Your task to perform on an android device: change keyboard looks Image 0: 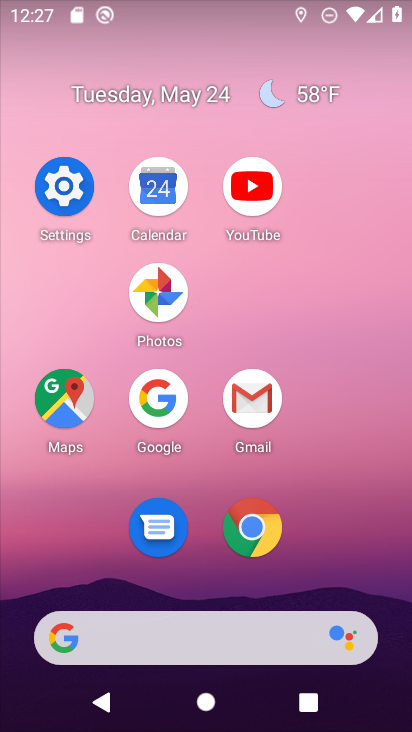
Step 0: click (60, 183)
Your task to perform on an android device: change keyboard looks Image 1: 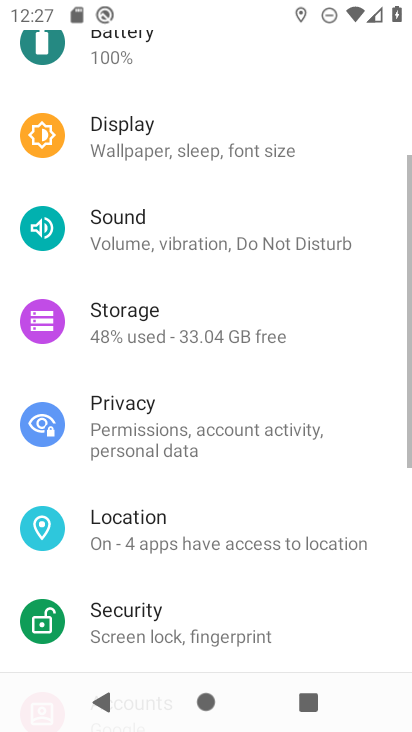
Step 1: drag from (304, 575) to (264, 189)
Your task to perform on an android device: change keyboard looks Image 2: 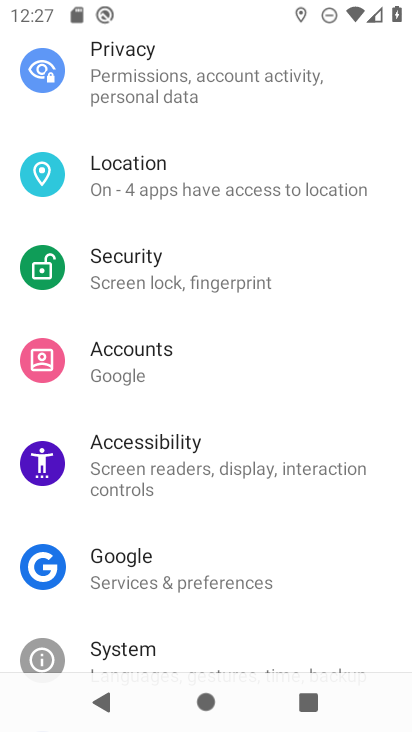
Step 2: drag from (216, 598) to (219, 180)
Your task to perform on an android device: change keyboard looks Image 3: 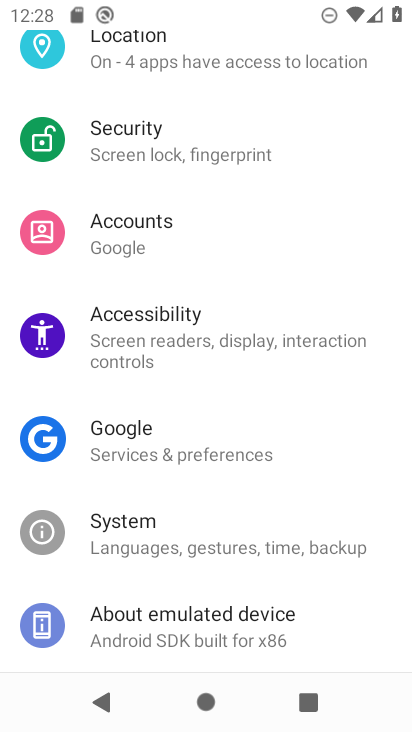
Step 3: click (245, 535)
Your task to perform on an android device: change keyboard looks Image 4: 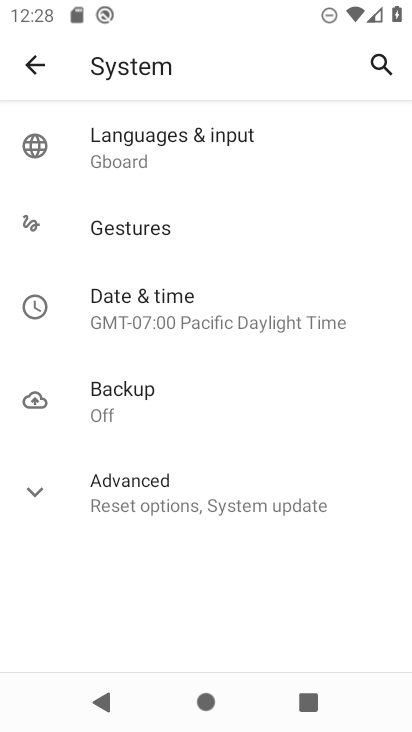
Step 4: click (159, 157)
Your task to perform on an android device: change keyboard looks Image 5: 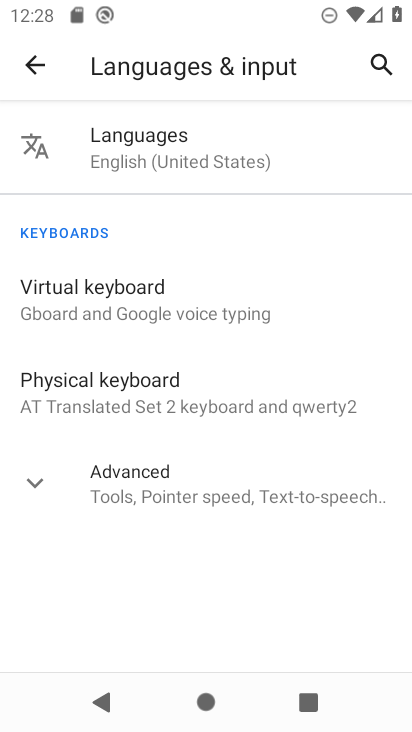
Step 5: click (191, 312)
Your task to perform on an android device: change keyboard looks Image 6: 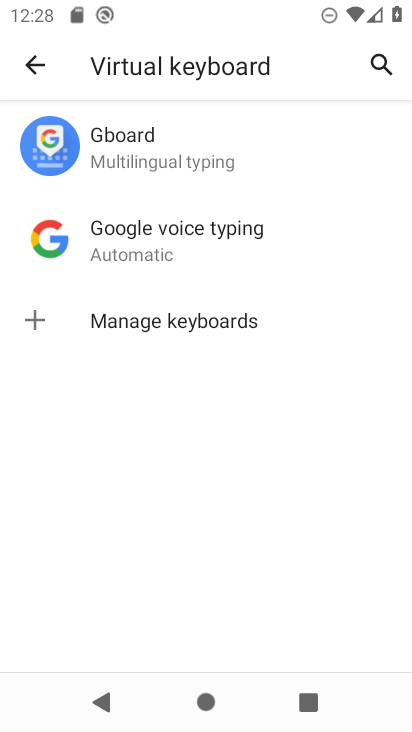
Step 6: click (155, 158)
Your task to perform on an android device: change keyboard looks Image 7: 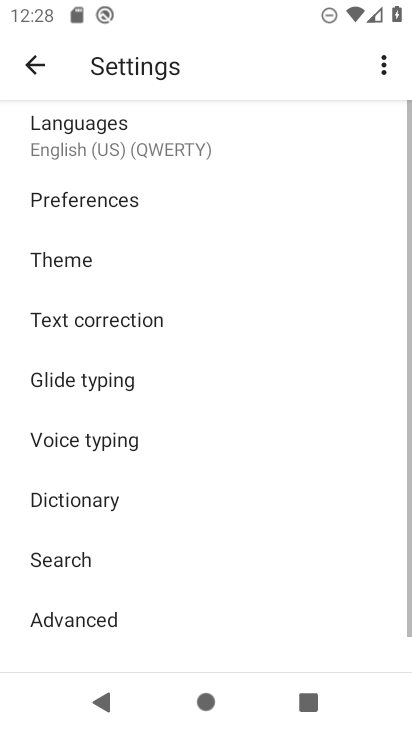
Step 7: click (47, 248)
Your task to perform on an android device: change keyboard looks Image 8: 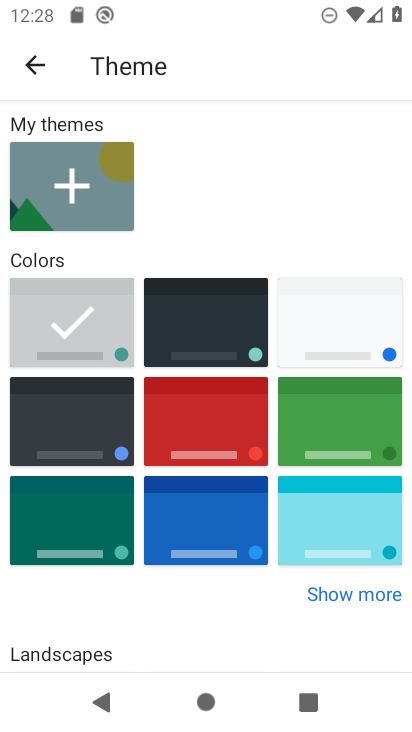
Step 8: click (256, 361)
Your task to perform on an android device: change keyboard looks Image 9: 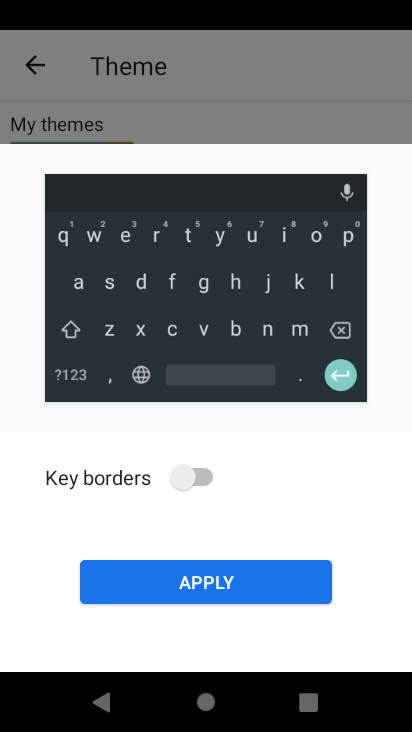
Step 9: click (232, 474)
Your task to perform on an android device: change keyboard looks Image 10: 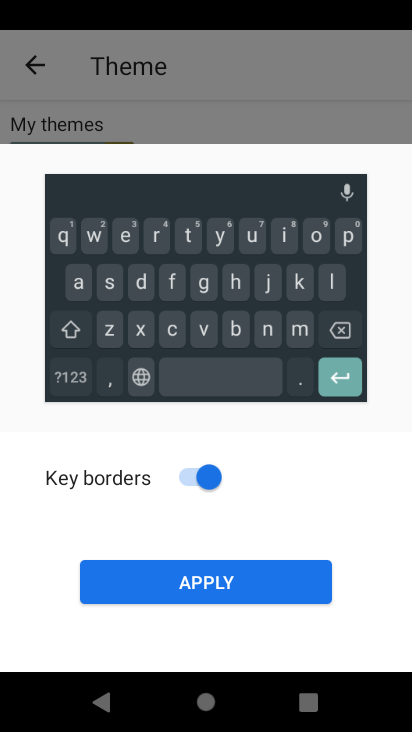
Step 10: click (293, 589)
Your task to perform on an android device: change keyboard looks Image 11: 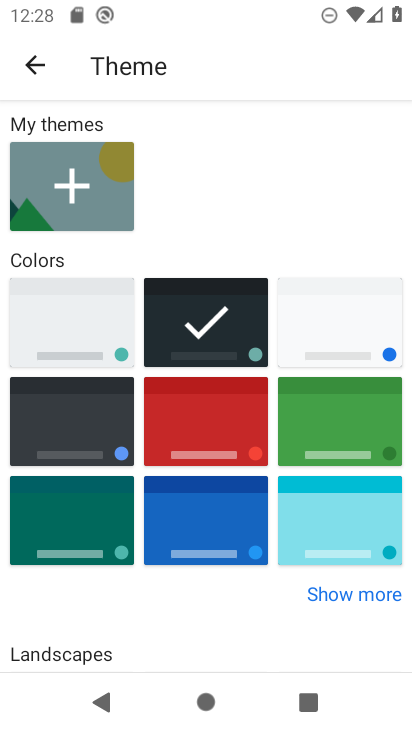
Step 11: task complete